Your task to perform on an android device: open app "Facebook" (install if not already installed) Image 0: 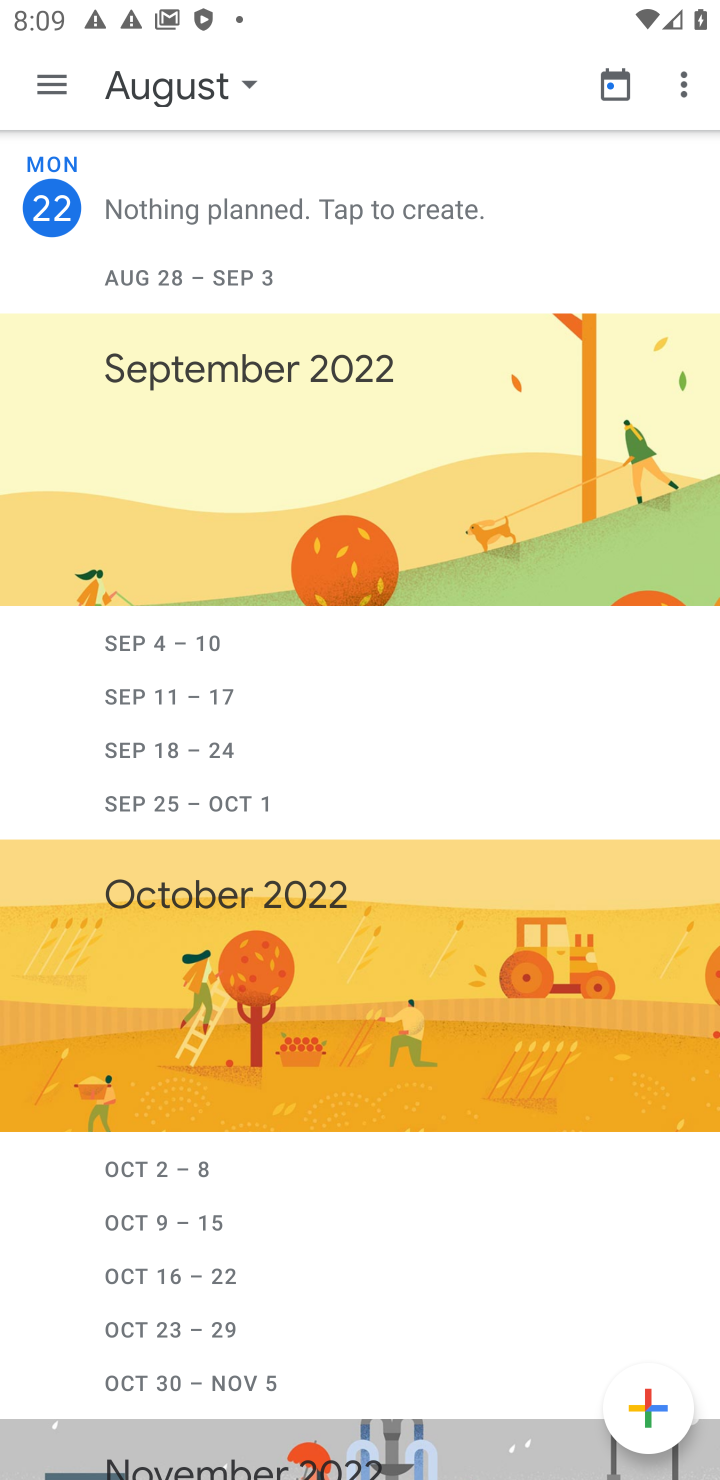
Step 0: press home button
Your task to perform on an android device: open app "Facebook" (install if not already installed) Image 1: 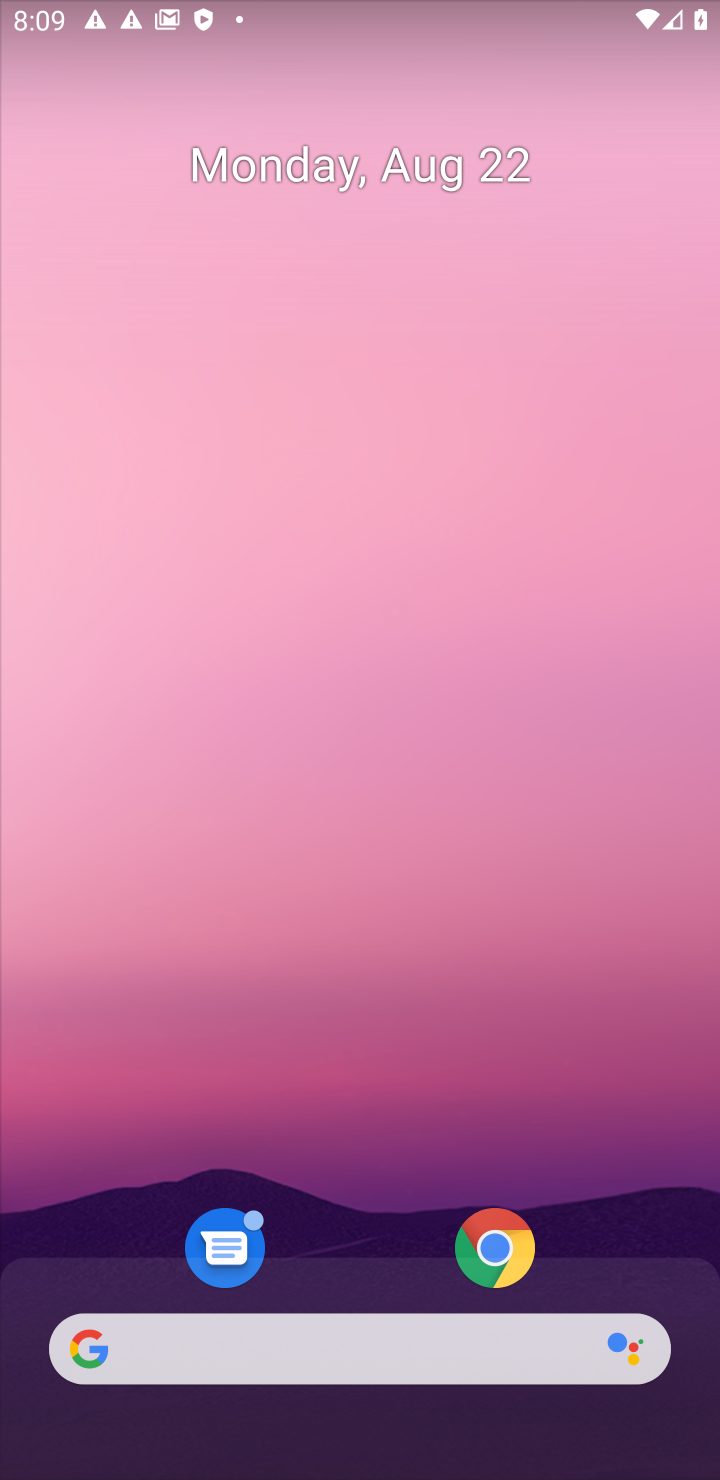
Step 1: drag from (381, 1308) to (296, 356)
Your task to perform on an android device: open app "Facebook" (install if not already installed) Image 2: 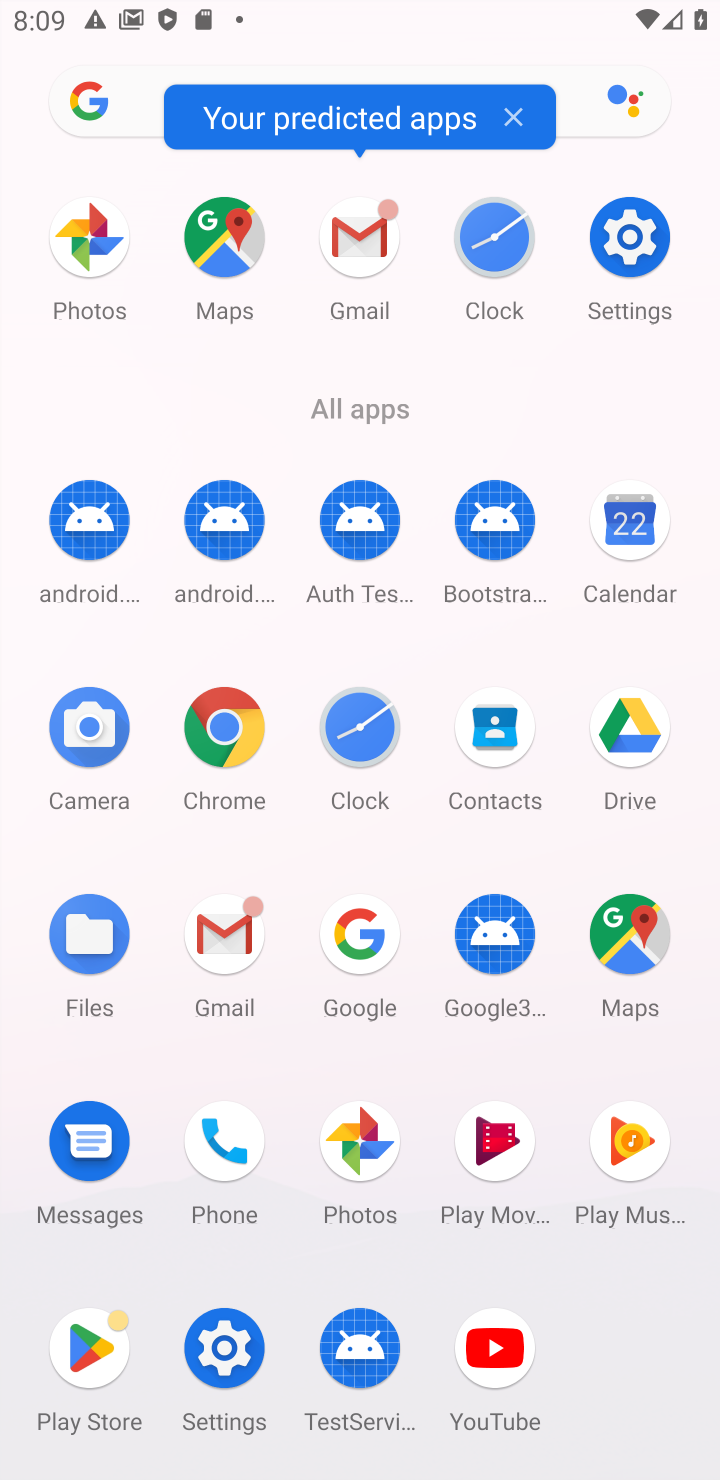
Step 2: click (91, 1347)
Your task to perform on an android device: open app "Facebook" (install if not already installed) Image 3: 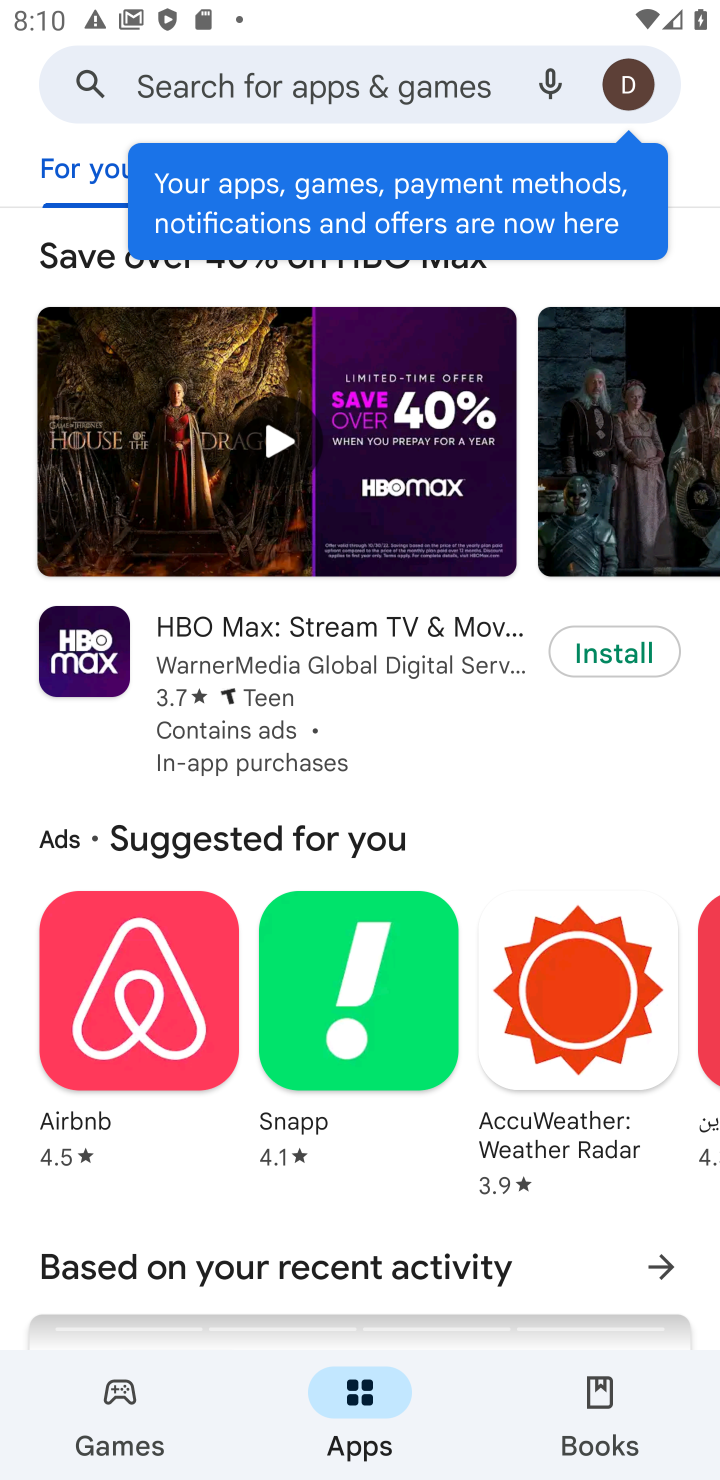
Step 3: click (364, 88)
Your task to perform on an android device: open app "Facebook" (install if not already installed) Image 4: 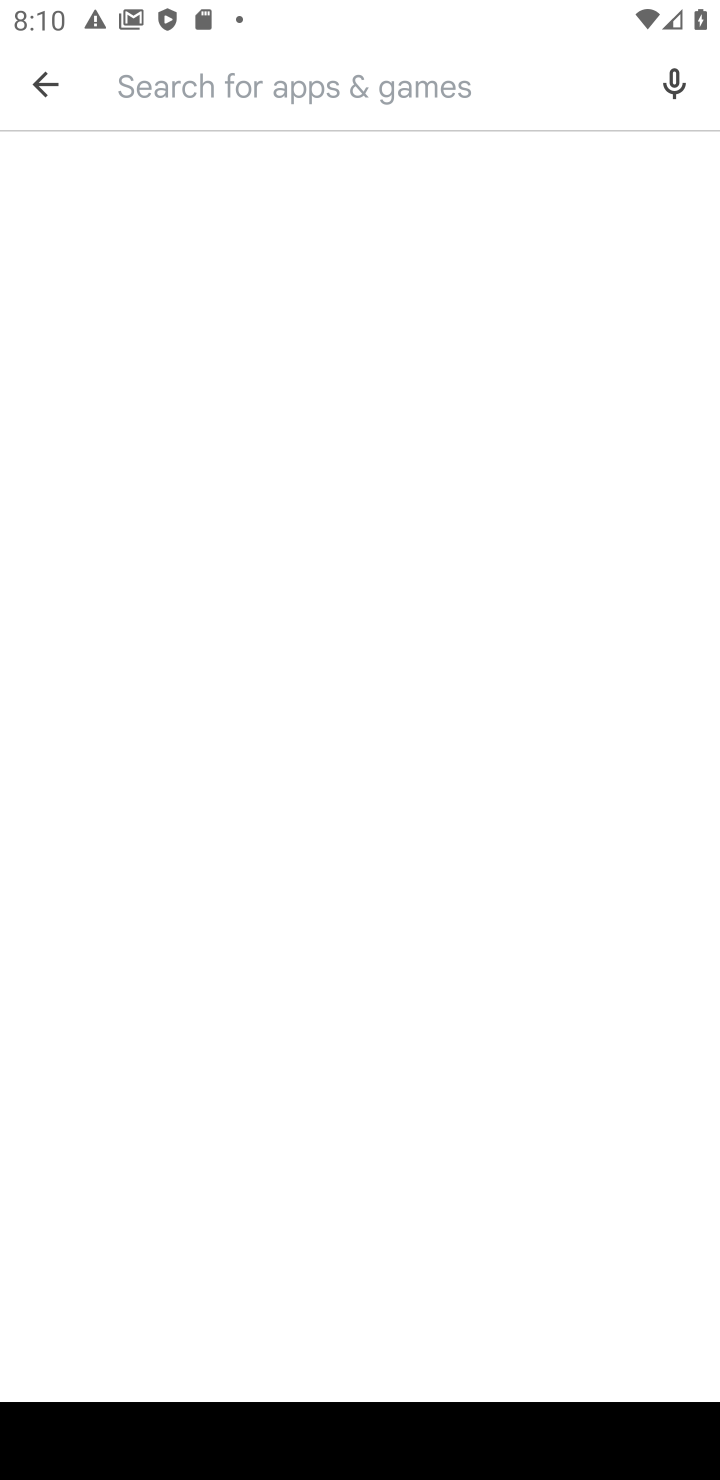
Step 4: type "Facebook"
Your task to perform on an android device: open app "Facebook" (install if not already installed) Image 5: 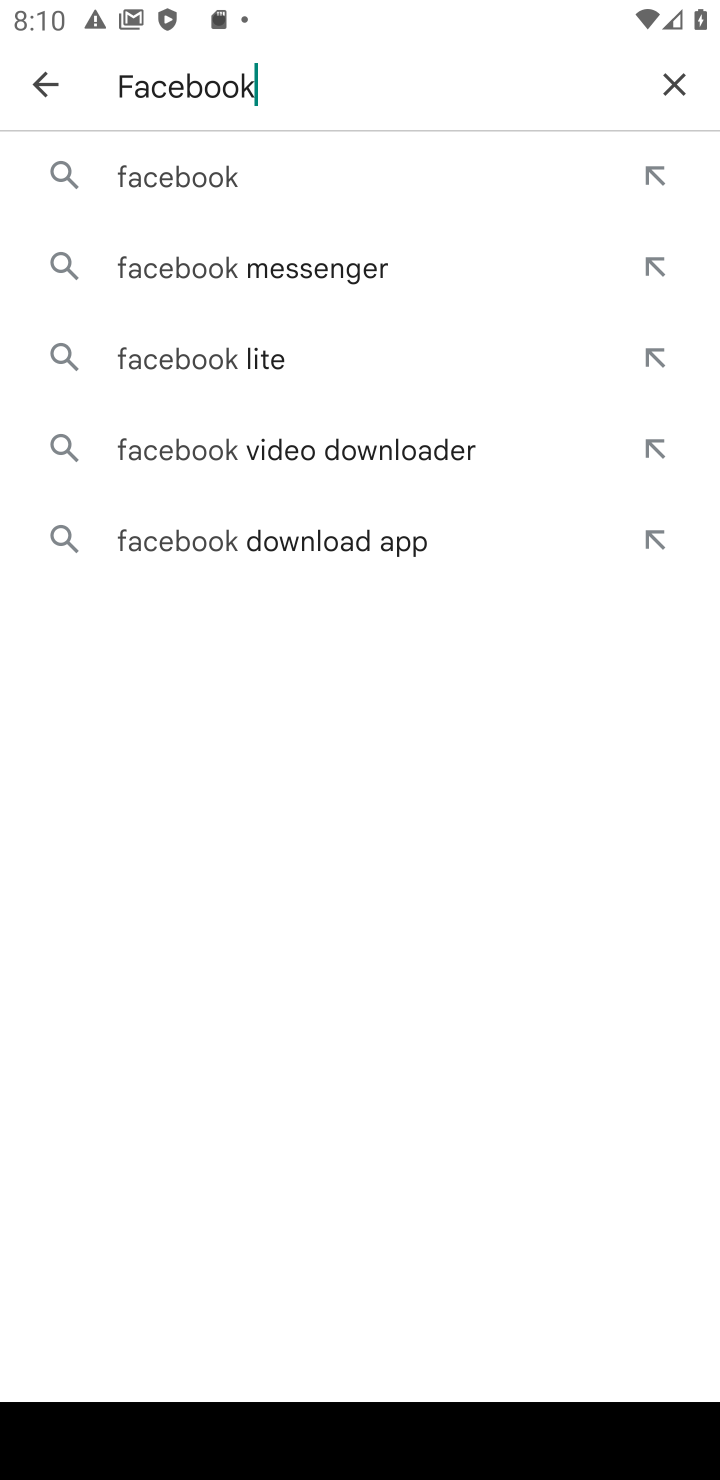
Step 5: click (195, 177)
Your task to perform on an android device: open app "Facebook" (install if not already installed) Image 6: 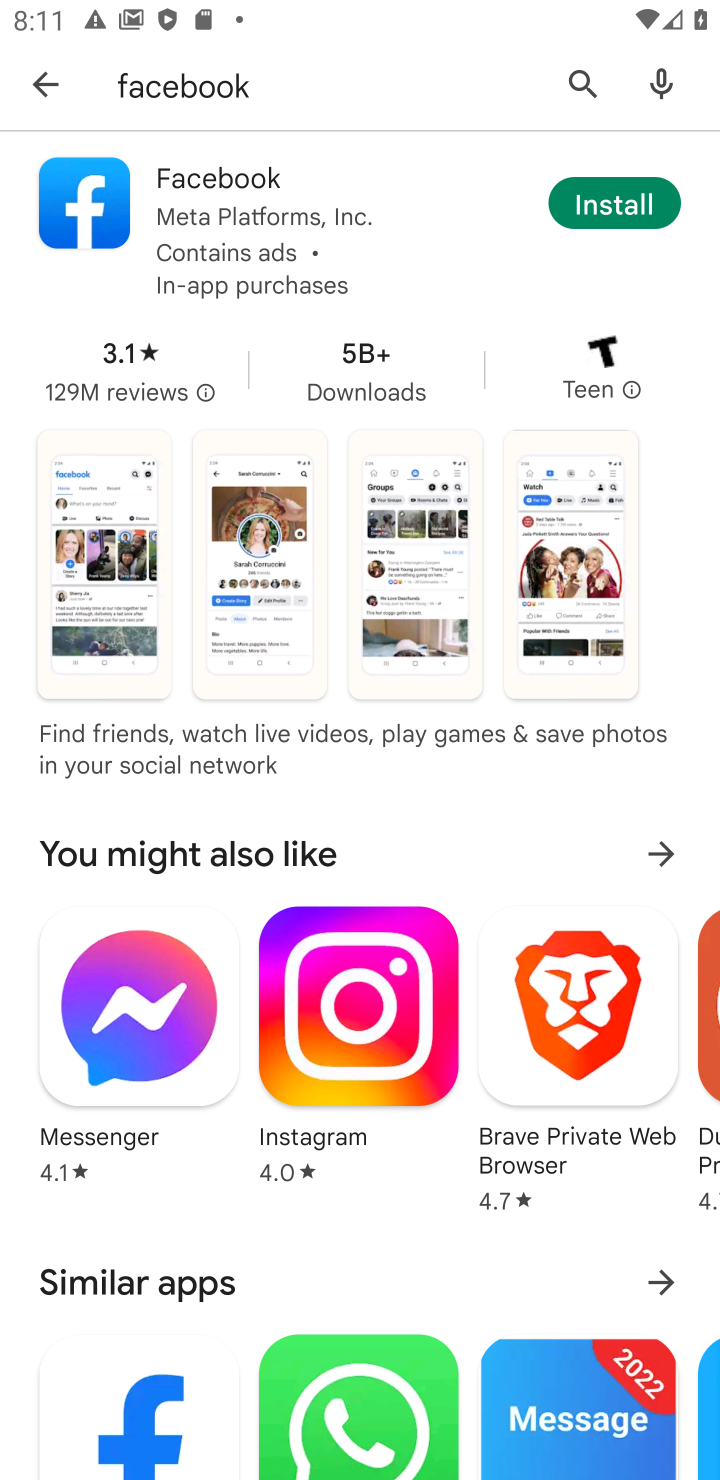
Step 6: click (614, 196)
Your task to perform on an android device: open app "Facebook" (install if not already installed) Image 7: 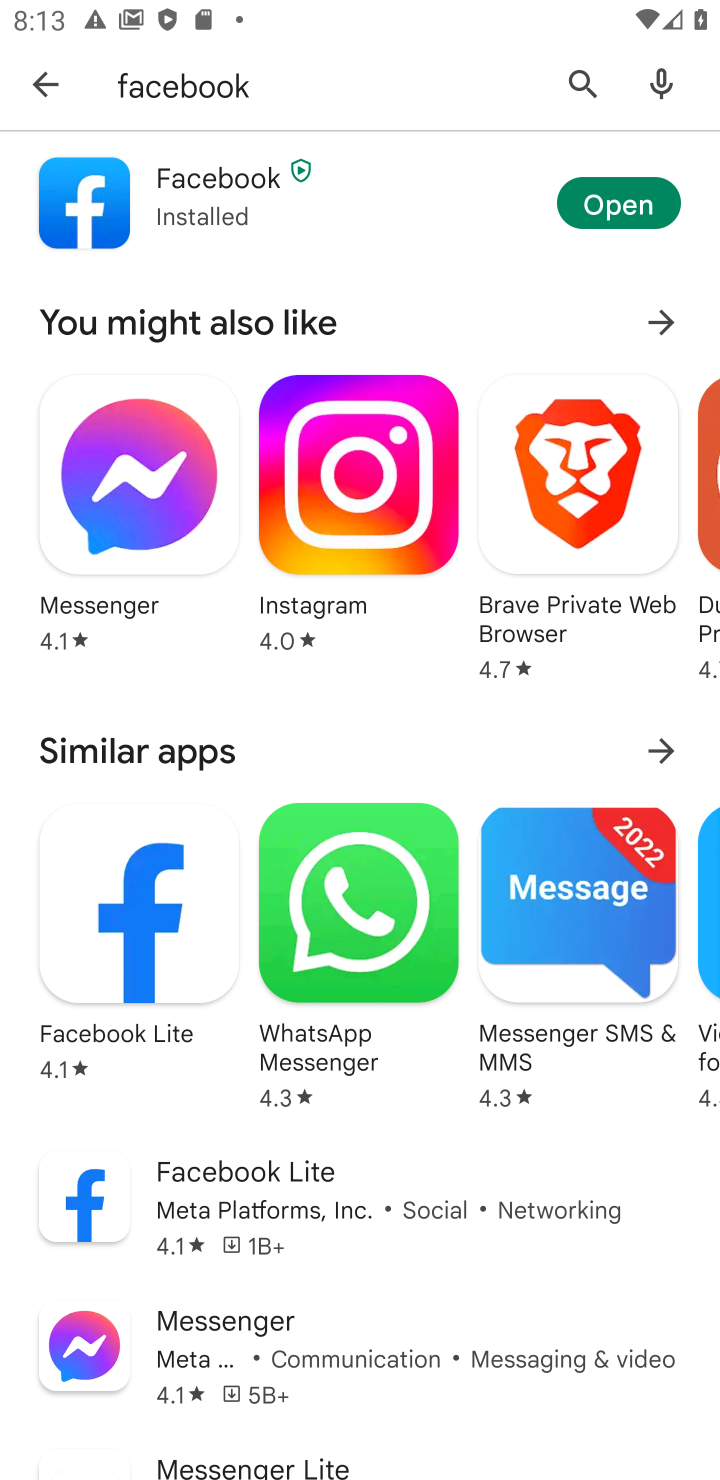
Step 7: task complete